Your task to perform on an android device: check storage Image 0: 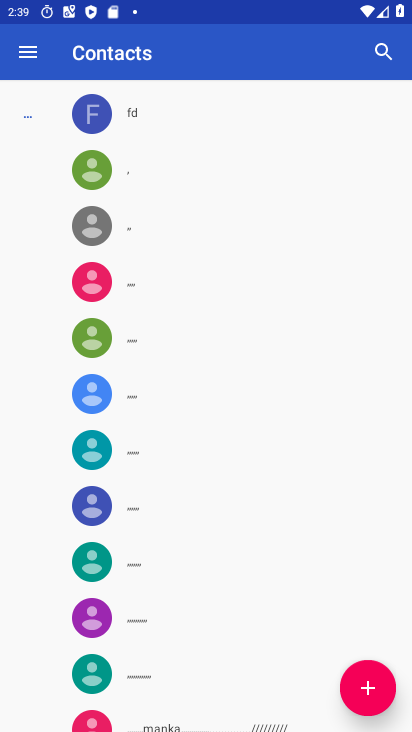
Step 0: press home button
Your task to perform on an android device: check storage Image 1: 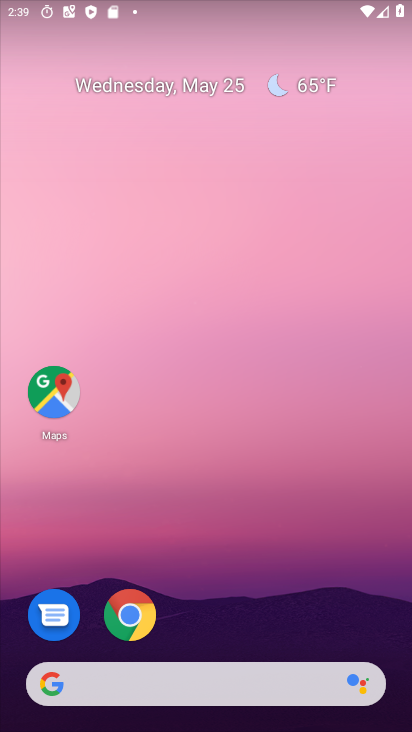
Step 1: drag from (395, 689) to (266, 188)
Your task to perform on an android device: check storage Image 2: 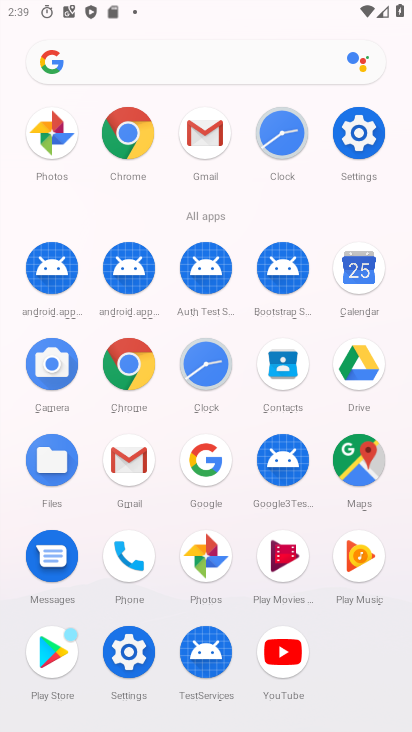
Step 2: click (359, 148)
Your task to perform on an android device: check storage Image 3: 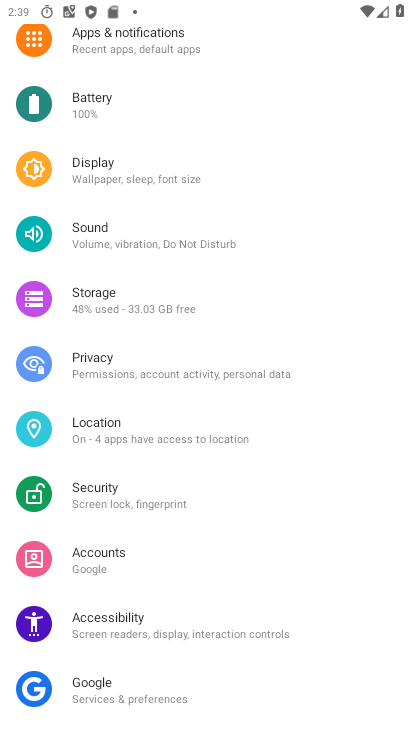
Step 3: click (109, 293)
Your task to perform on an android device: check storage Image 4: 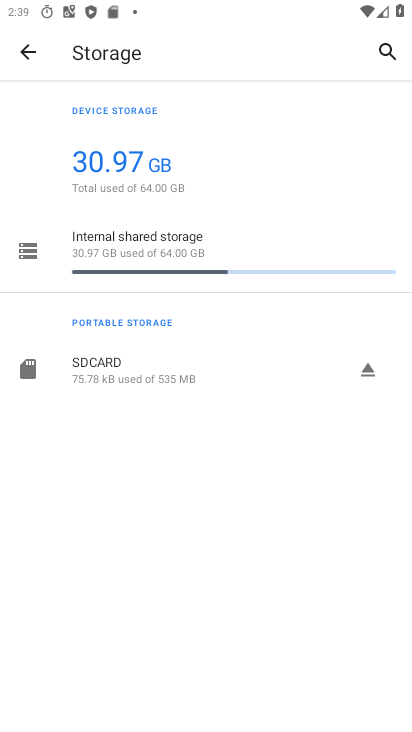
Step 4: task complete